Your task to perform on an android device: Show me recent news Image 0: 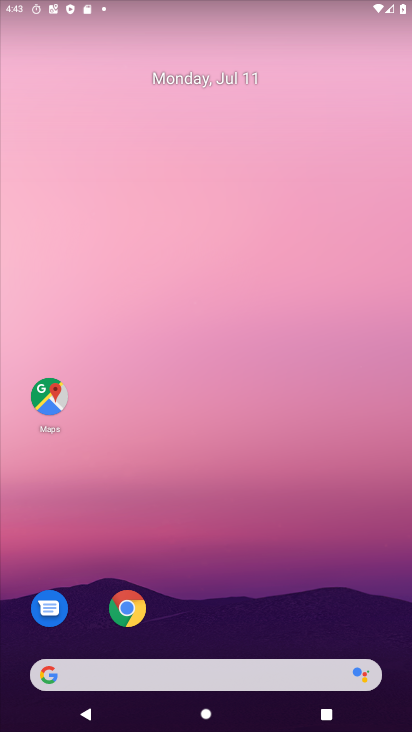
Step 0: drag from (241, 661) to (238, 124)
Your task to perform on an android device: Show me recent news Image 1: 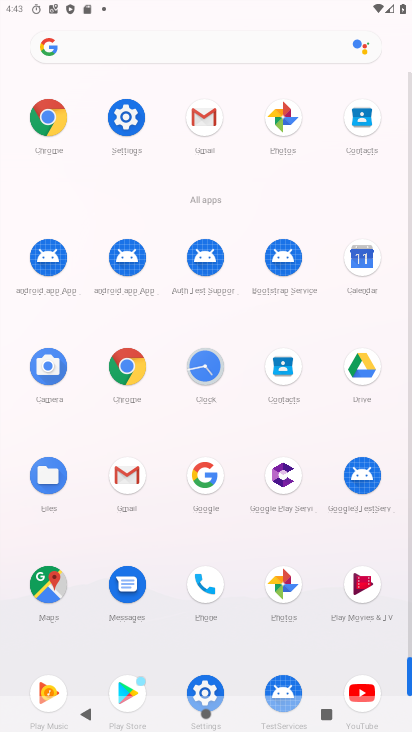
Step 1: click (124, 367)
Your task to perform on an android device: Show me recent news Image 2: 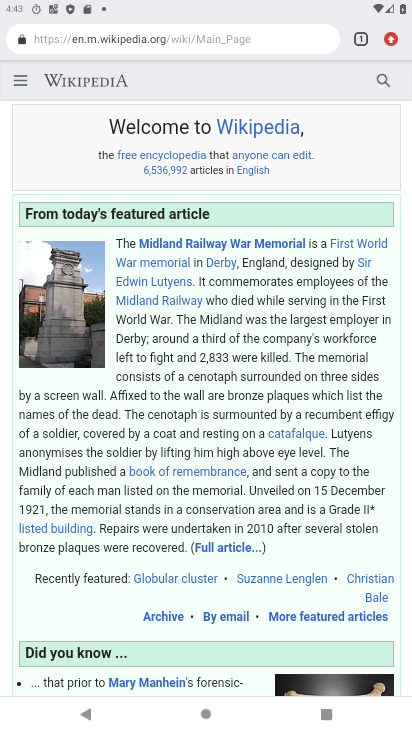
Step 2: click (268, 39)
Your task to perform on an android device: Show me recent news Image 3: 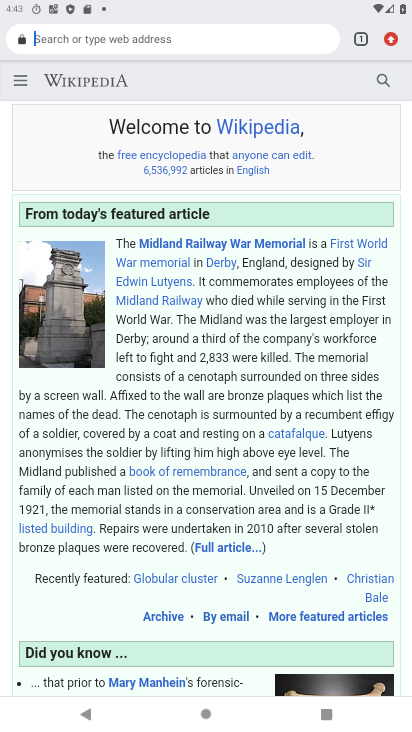
Step 3: click (268, 39)
Your task to perform on an android device: Show me recent news Image 4: 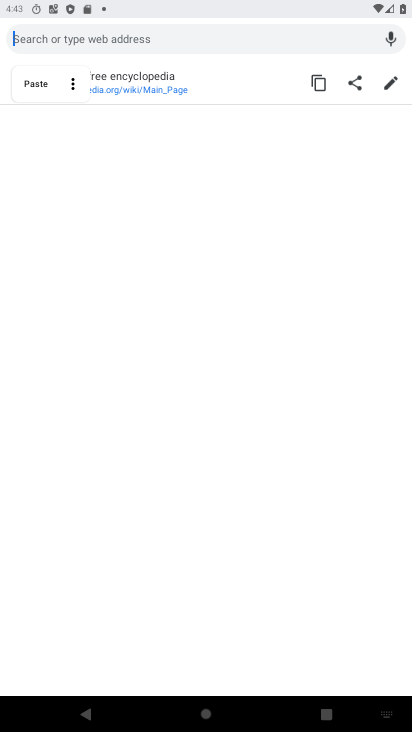
Step 4: type "recent news"
Your task to perform on an android device: Show me recent news Image 5: 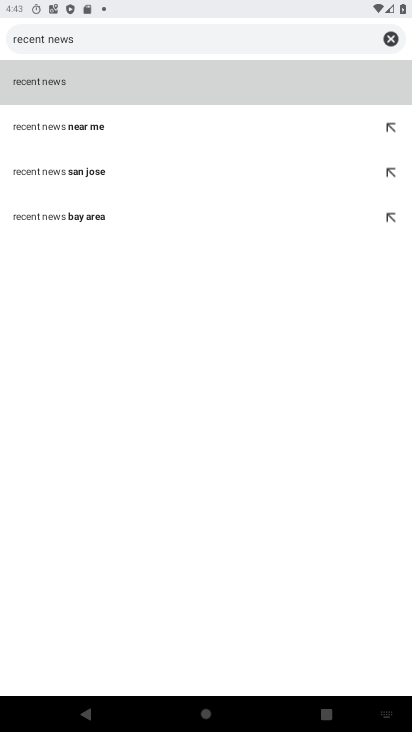
Step 5: click (46, 82)
Your task to perform on an android device: Show me recent news Image 6: 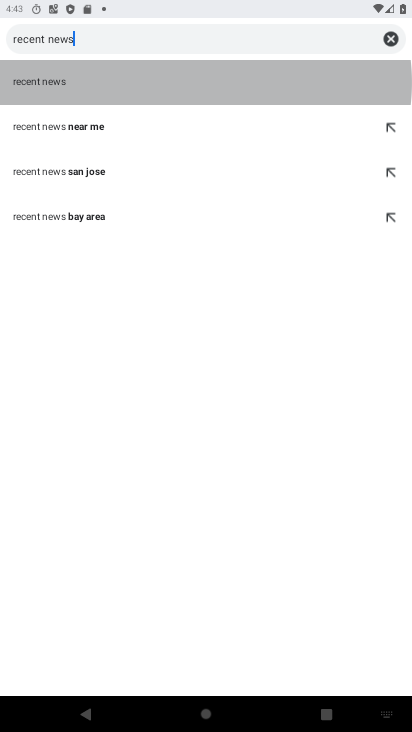
Step 6: click (46, 82)
Your task to perform on an android device: Show me recent news Image 7: 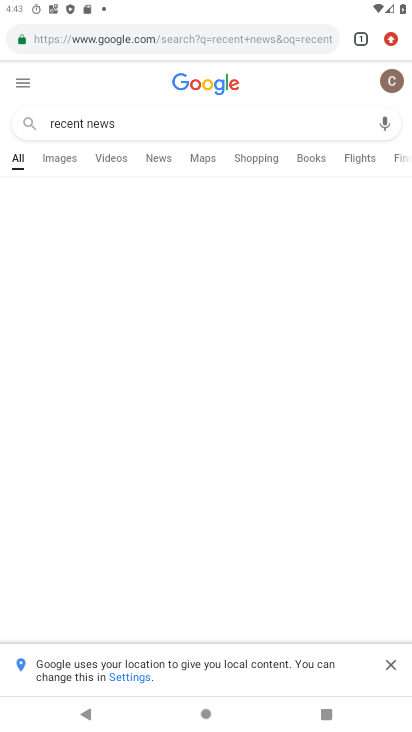
Step 7: task complete